Your task to perform on an android device: turn on bluetooth scan Image 0: 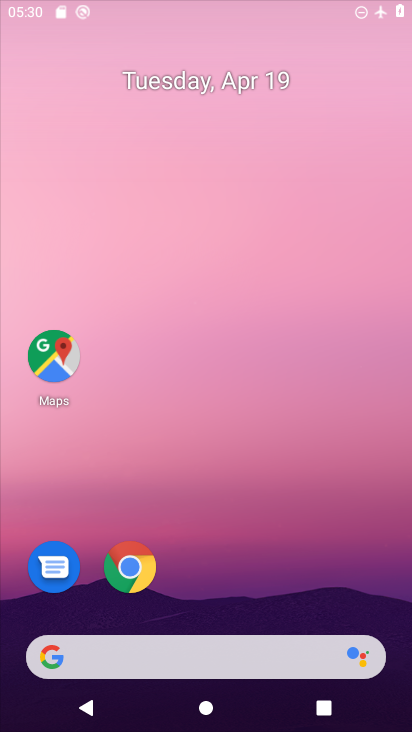
Step 0: drag from (285, 445) to (305, 13)
Your task to perform on an android device: turn on bluetooth scan Image 1: 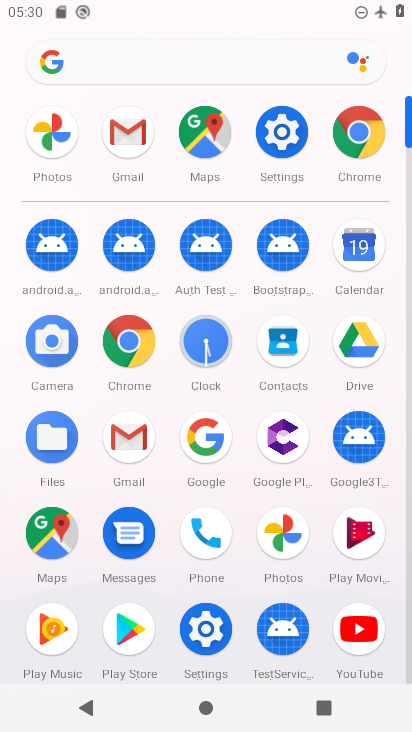
Step 1: click (205, 622)
Your task to perform on an android device: turn on bluetooth scan Image 2: 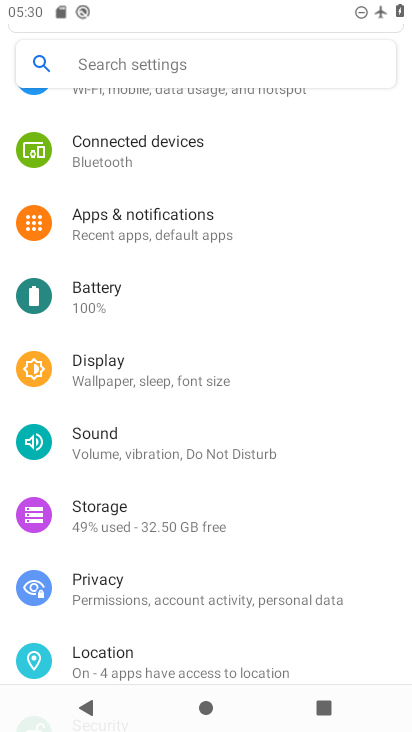
Step 2: drag from (178, 638) to (190, 159)
Your task to perform on an android device: turn on bluetooth scan Image 3: 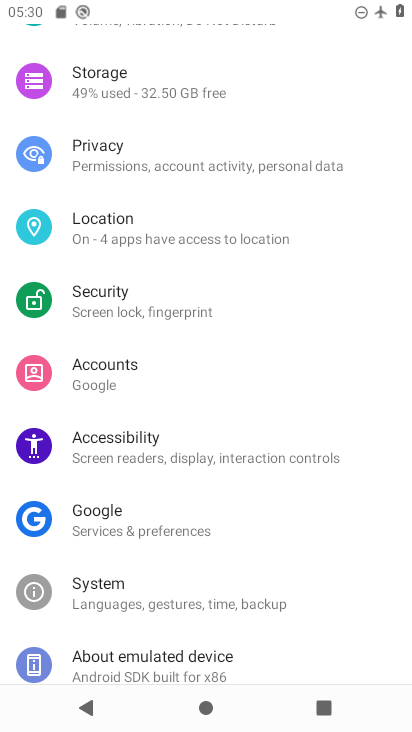
Step 3: click (152, 236)
Your task to perform on an android device: turn on bluetooth scan Image 4: 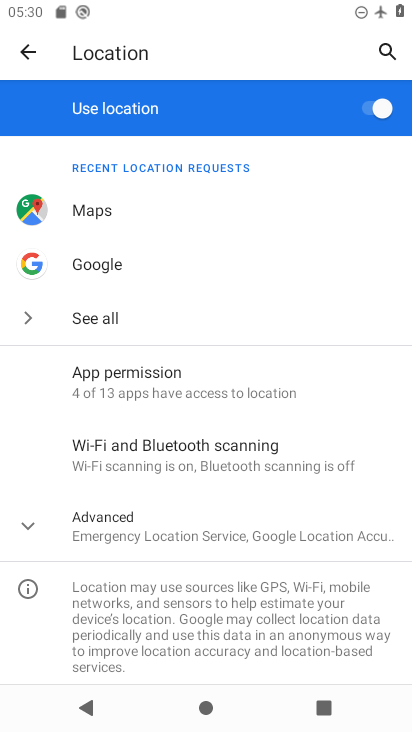
Step 4: click (133, 453)
Your task to perform on an android device: turn on bluetooth scan Image 5: 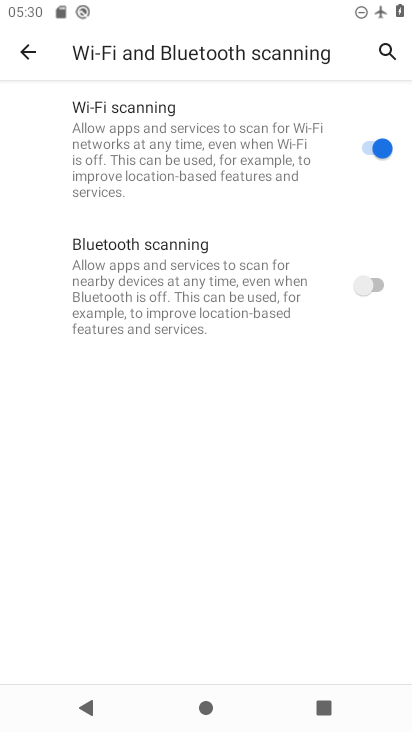
Step 5: click (385, 285)
Your task to perform on an android device: turn on bluetooth scan Image 6: 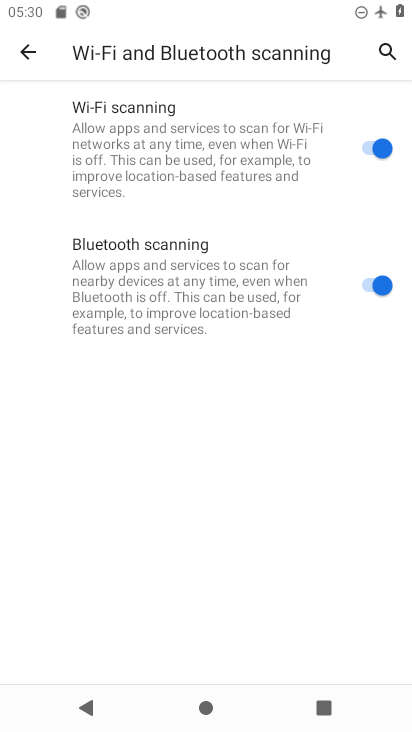
Step 6: task complete